Your task to perform on an android device: open app "ColorNote Notepad Notes" (install if not already installed) Image 0: 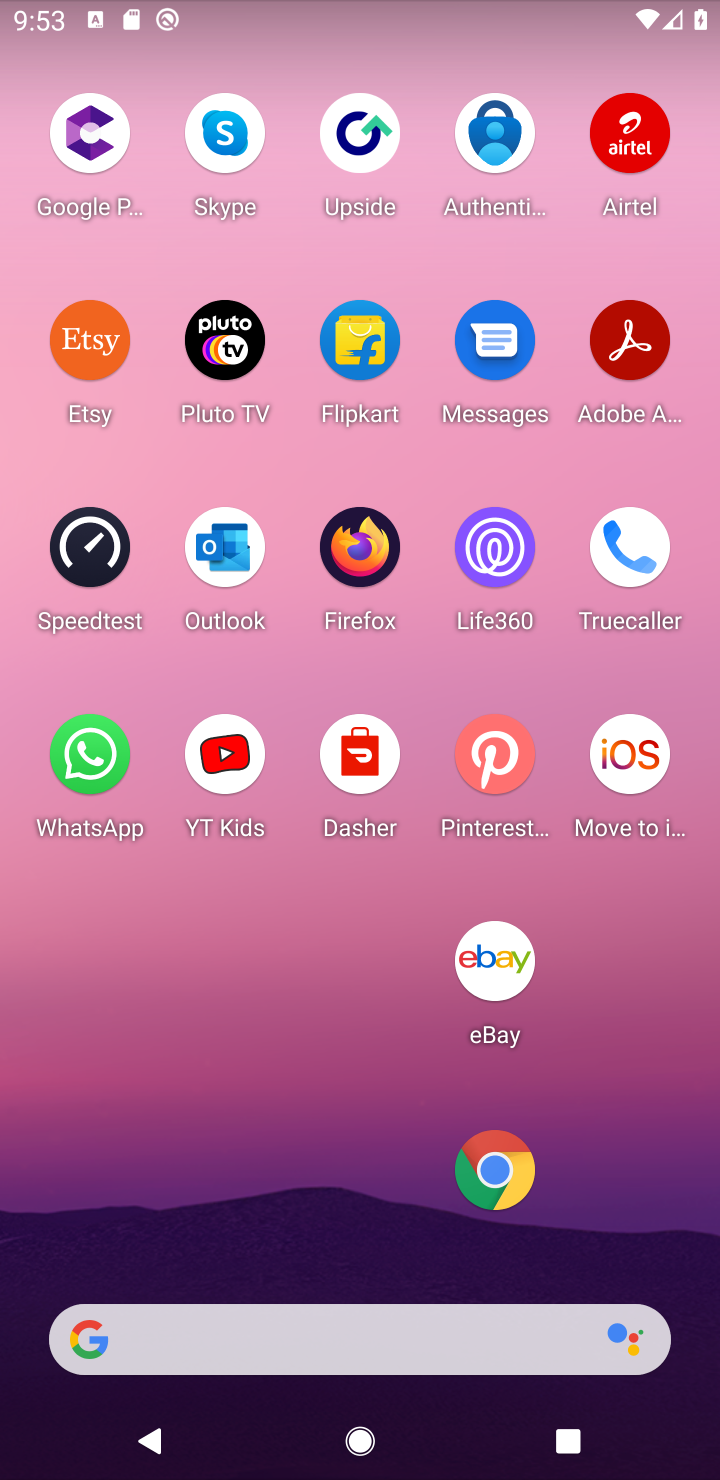
Step 0: drag from (303, 1149) to (439, 63)
Your task to perform on an android device: open app "ColorNote Notepad Notes" (install if not already installed) Image 1: 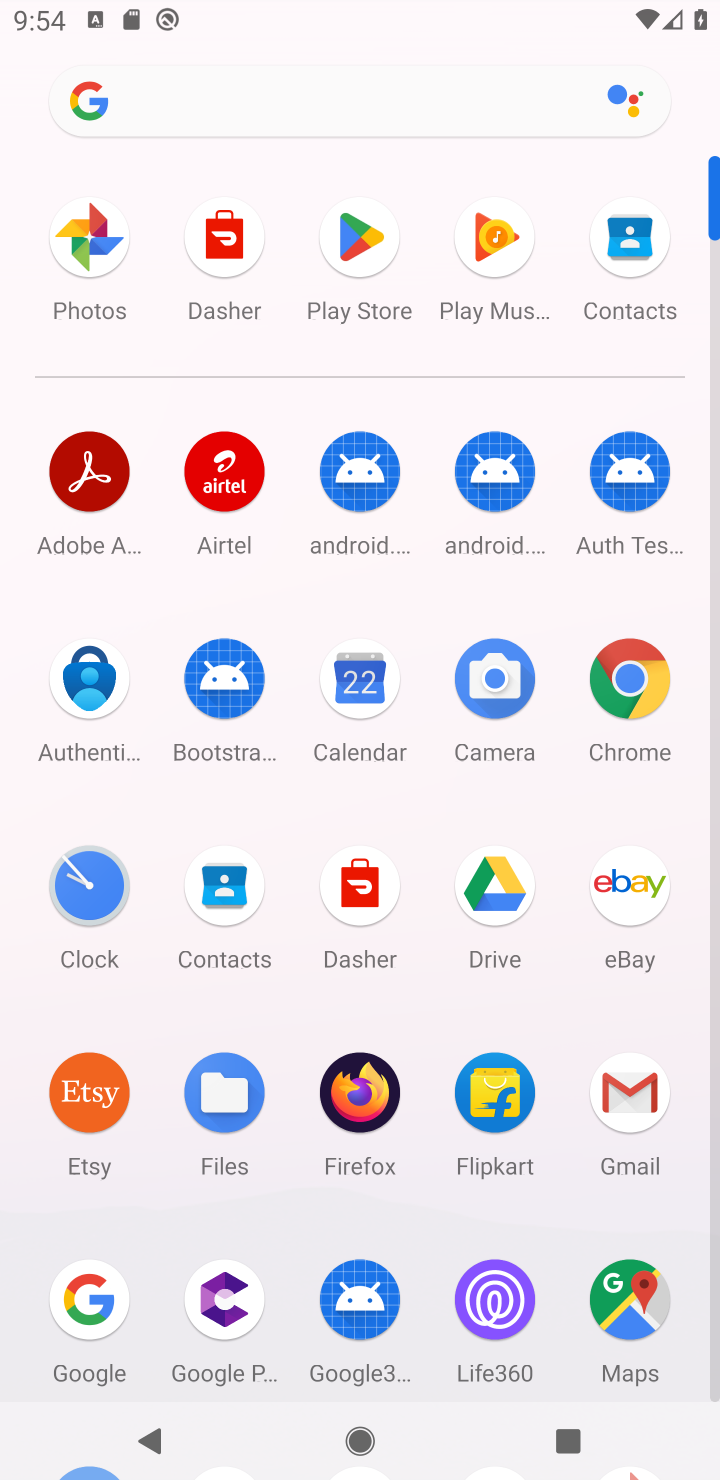
Step 1: click (357, 238)
Your task to perform on an android device: open app "ColorNote Notepad Notes" (install if not already installed) Image 2: 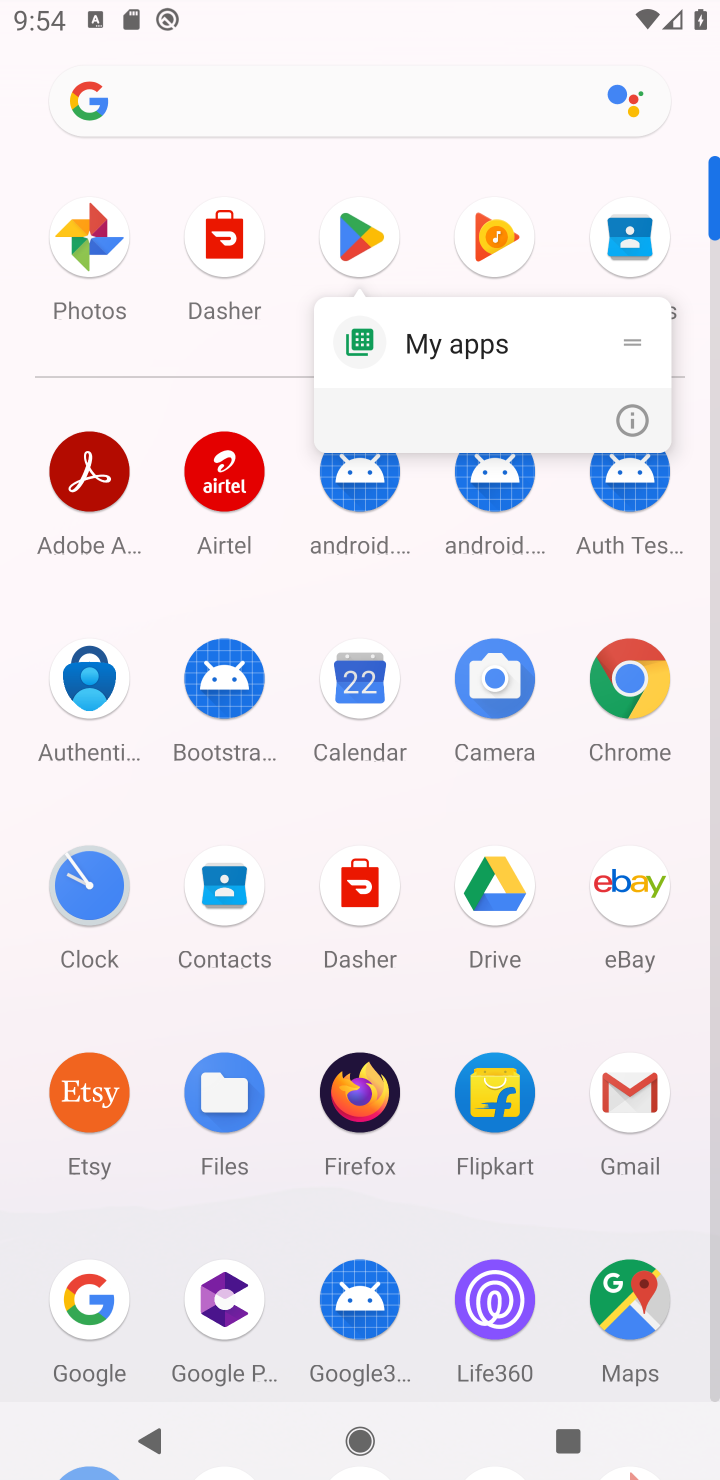
Step 2: click (371, 225)
Your task to perform on an android device: open app "ColorNote Notepad Notes" (install if not already installed) Image 3: 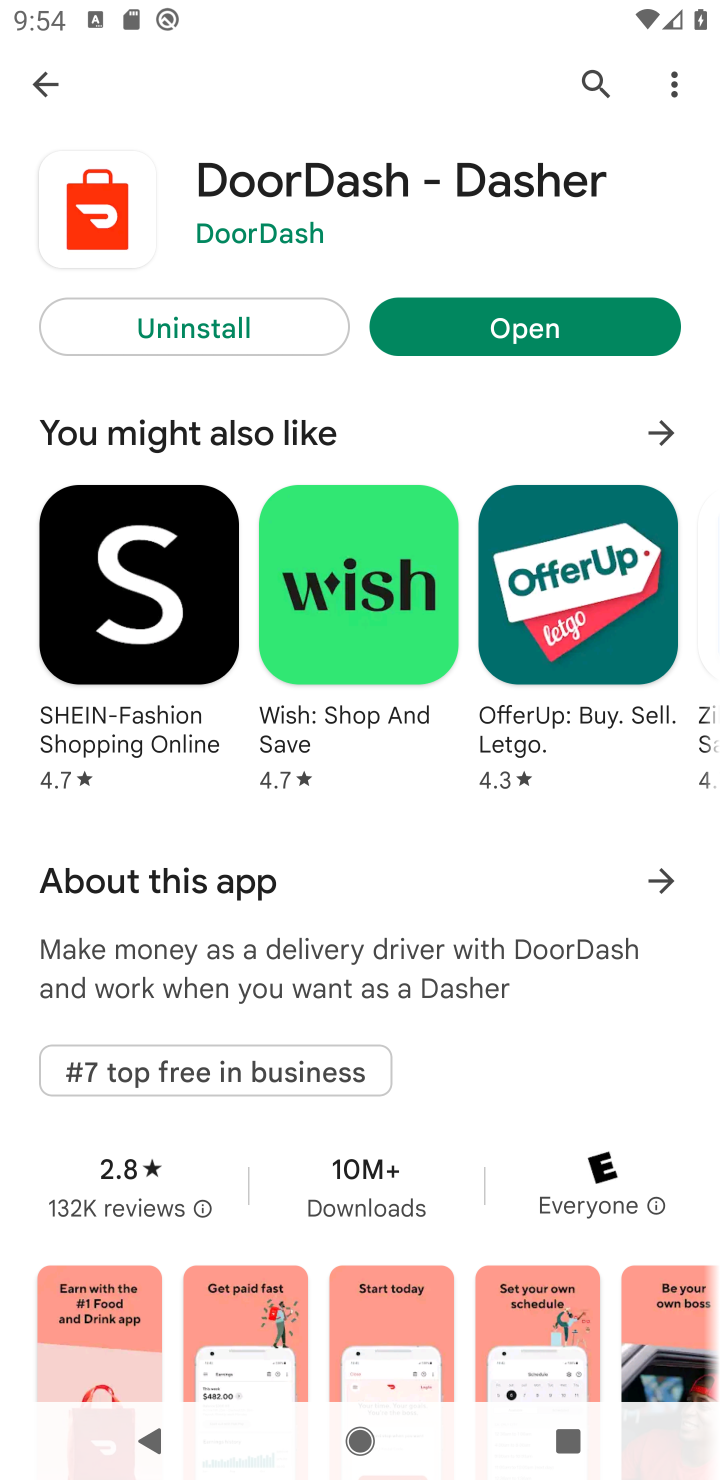
Step 3: click (588, 78)
Your task to perform on an android device: open app "ColorNote Notepad Notes" (install if not already installed) Image 4: 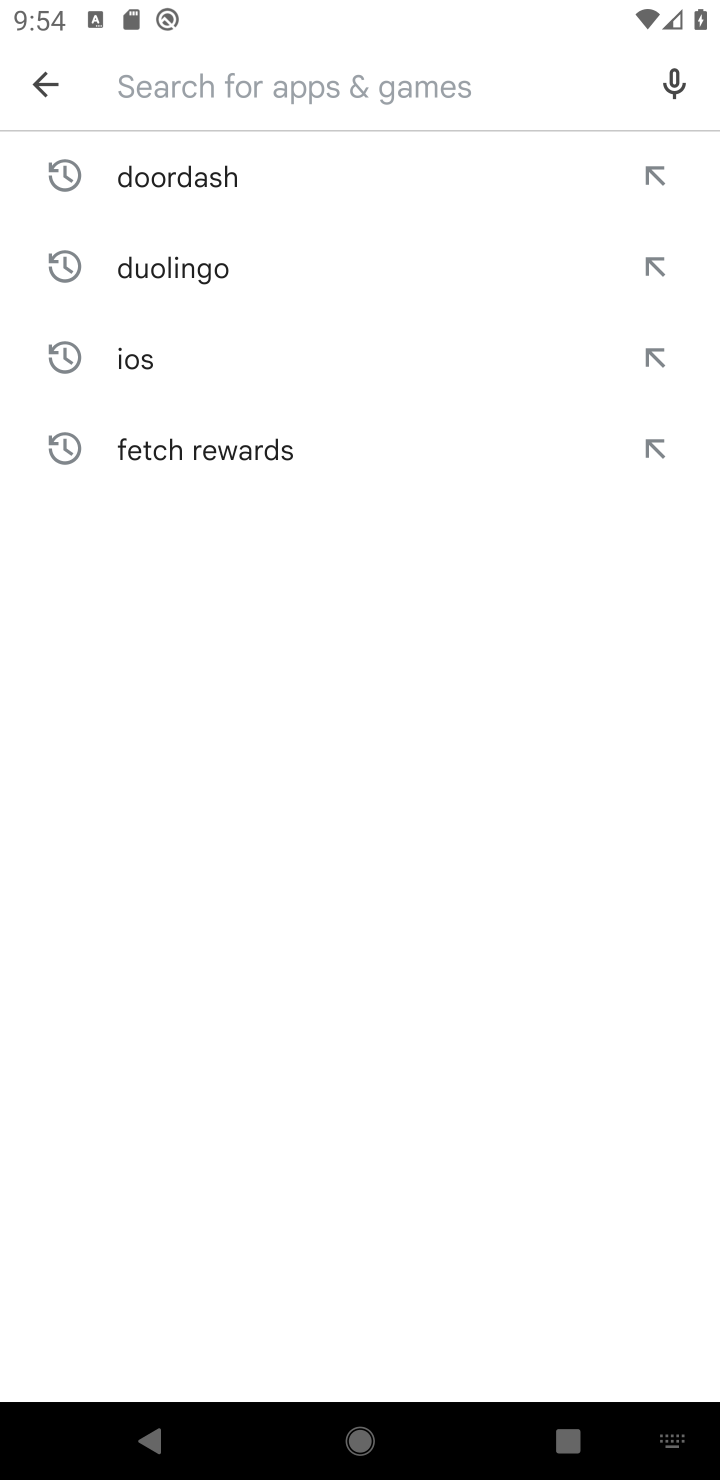
Step 4: click (191, 76)
Your task to perform on an android device: open app "ColorNote Notepad Notes" (install if not already installed) Image 5: 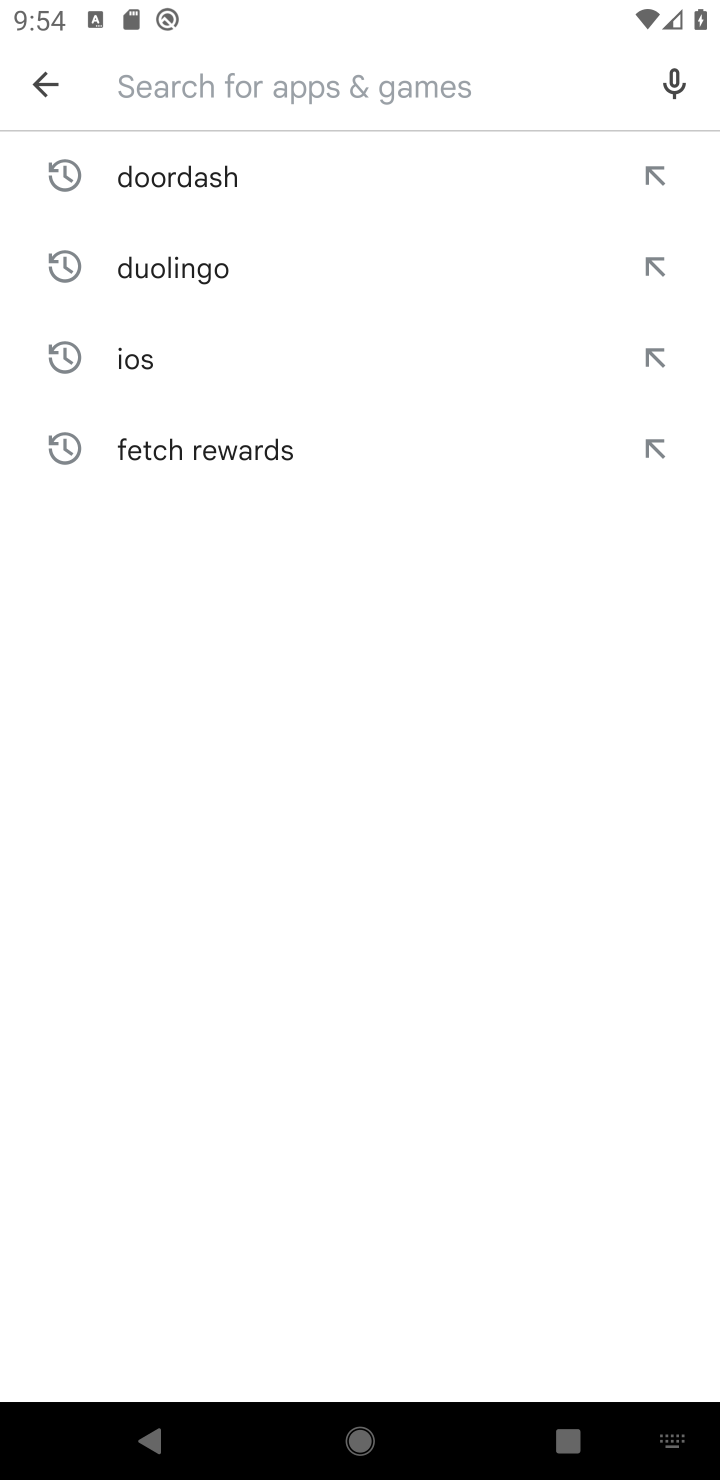
Step 5: type "ColorNote Notepad Notes"
Your task to perform on an android device: open app "ColorNote Notepad Notes" (install if not already installed) Image 6: 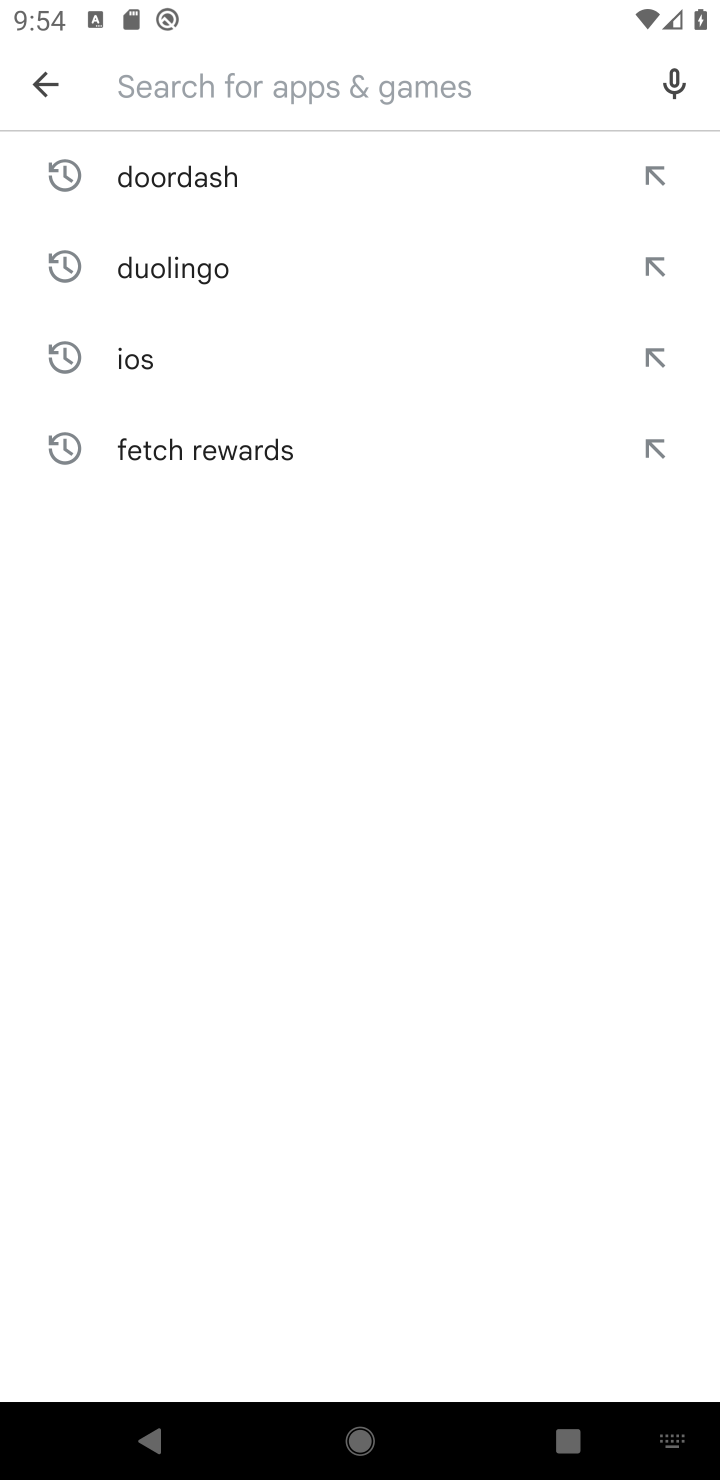
Step 6: click (374, 945)
Your task to perform on an android device: open app "ColorNote Notepad Notes" (install if not already installed) Image 7: 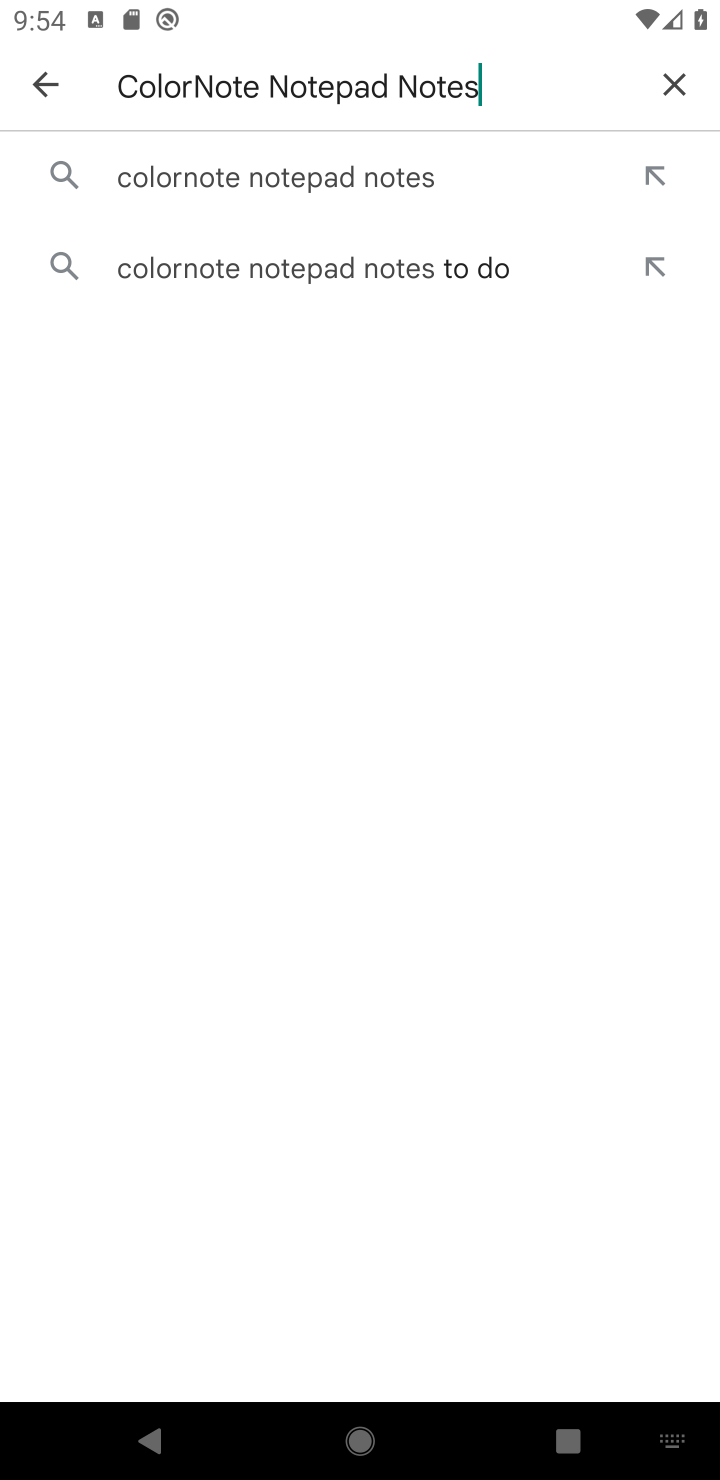
Step 7: click (349, 176)
Your task to perform on an android device: open app "ColorNote Notepad Notes" (install if not already installed) Image 8: 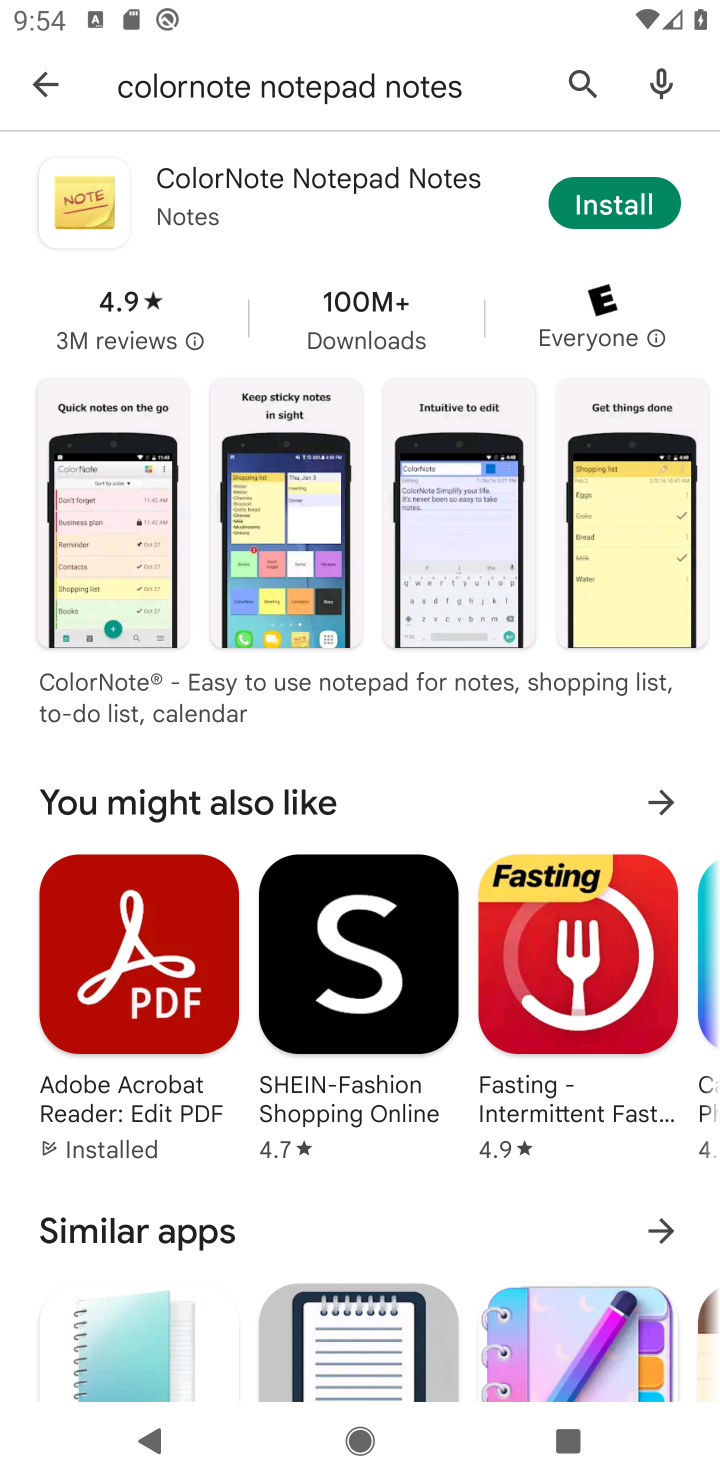
Step 8: click (597, 209)
Your task to perform on an android device: open app "ColorNote Notepad Notes" (install if not already installed) Image 9: 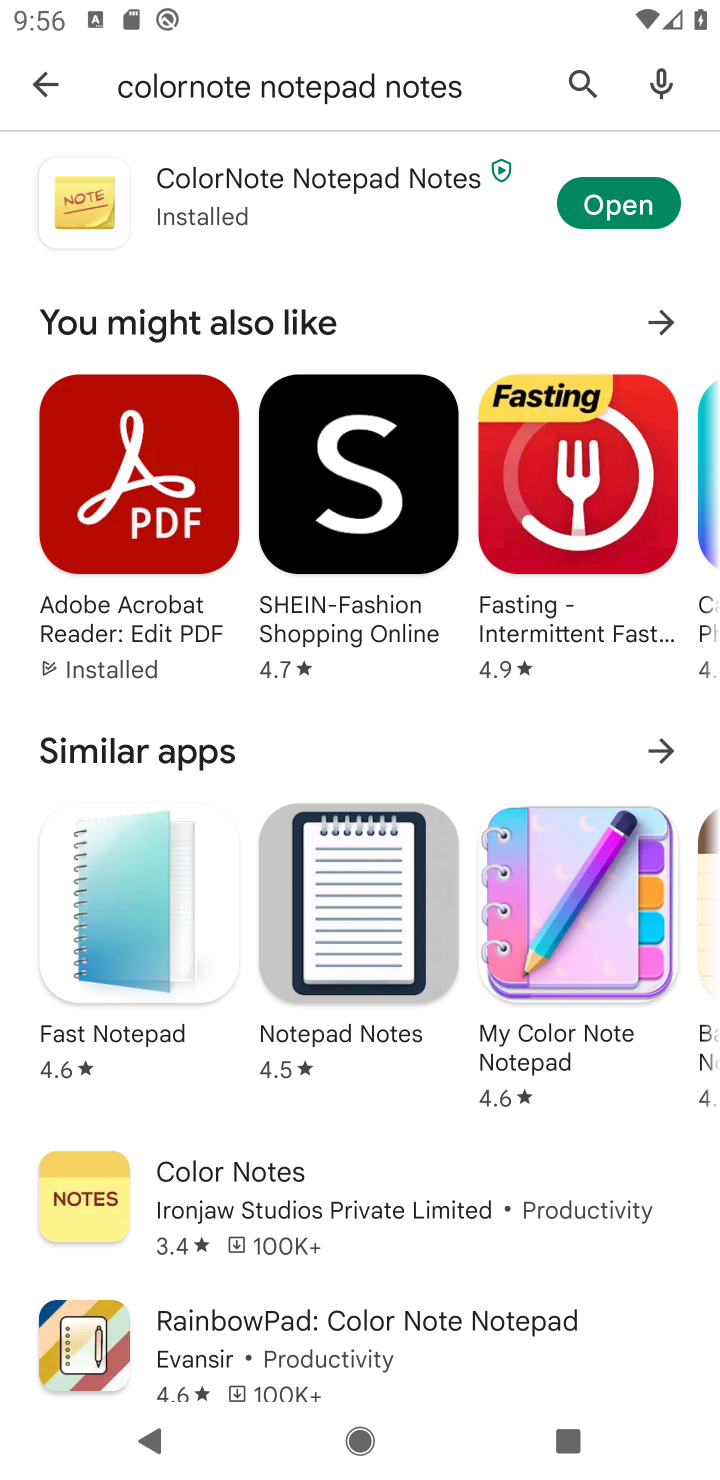
Step 9: click (616, 205)
Your task to perform on an android device: open app "ColorNote Notepad Notes" (install if not already installed) Image 10: 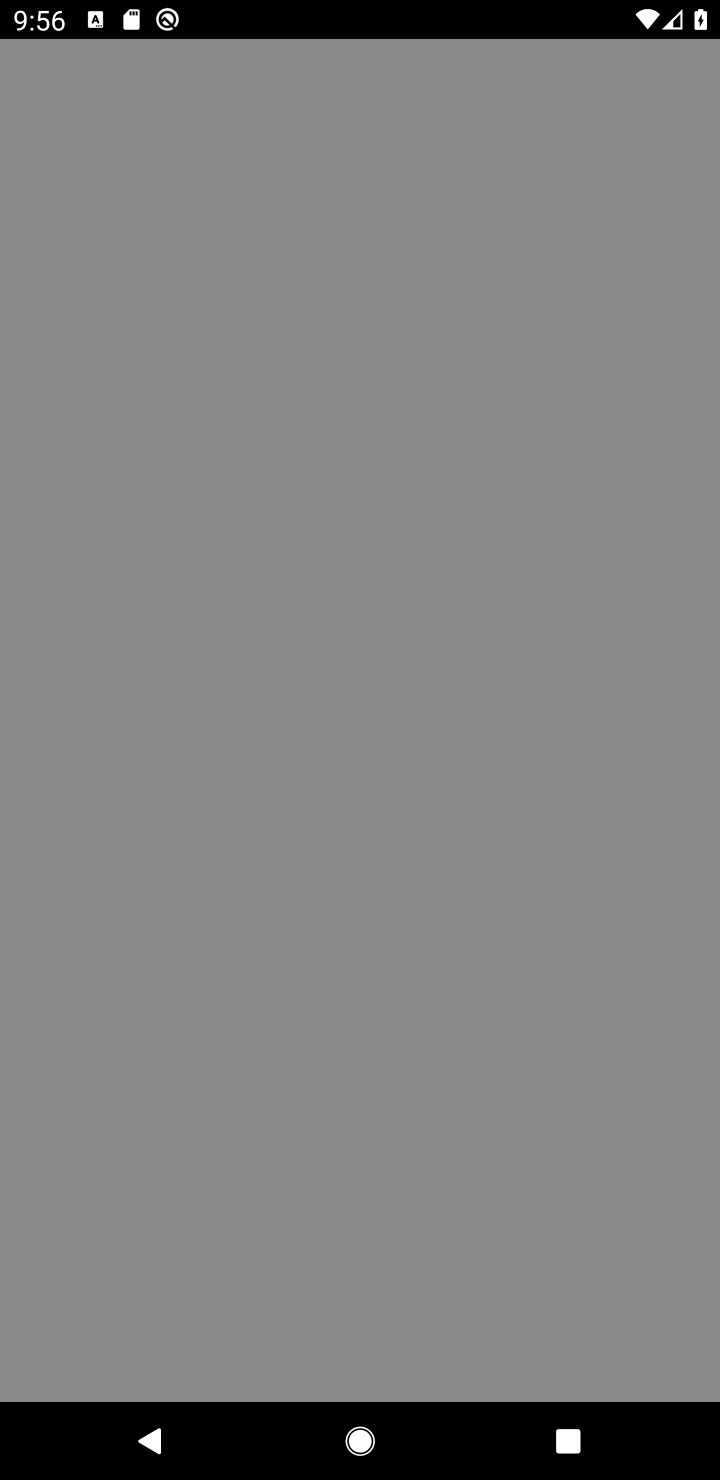
Step 10: task complete